Your task to perform on an android device: Open the calendar app, open the side menu, and click the "Day" option Image 0: 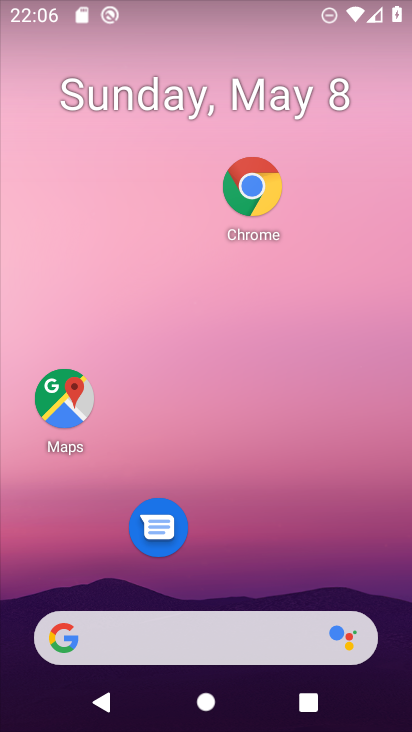
Step 0: click (337, 220)
Your task to perform on an android device: Open the calendar app, open the side menu, and click the "Day" option Image 1: 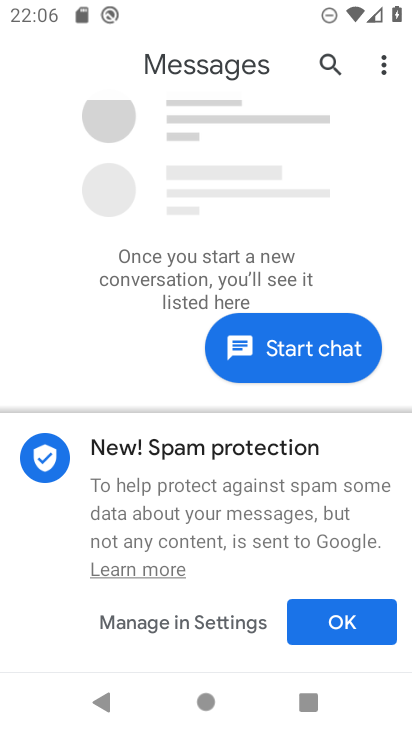
Step 1: press home button
Your task to perform on an android device: Open the calendar app, open the side menu, and click the "Day" option Image 2: 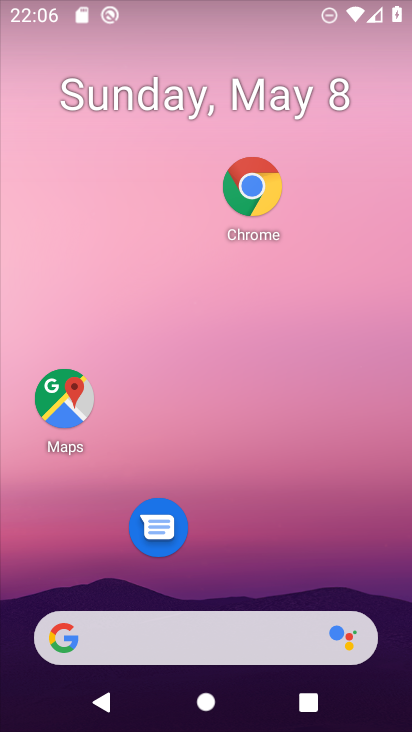
Step 2: drag from (313, 563) to (408, 69)
Your task to perform on an android device: Open the calendar app, open the side menu, and click the "Day" option Image 3: 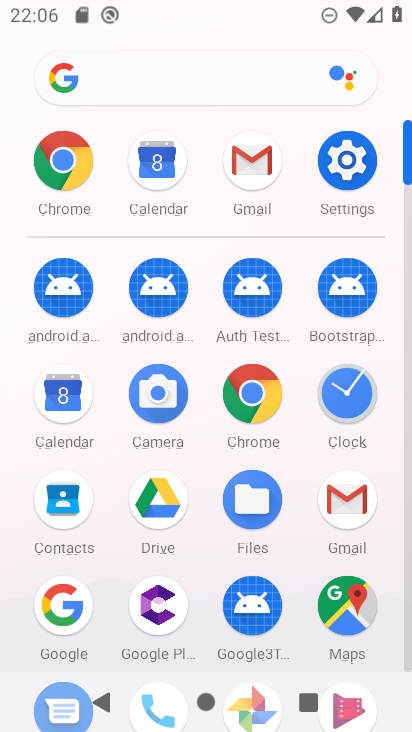
Step 3: drag from (293, 523) to (333, 134)
Your task to perform on an android device: Open the calendar app, open the side menu, and click the "Day" option Image 4: 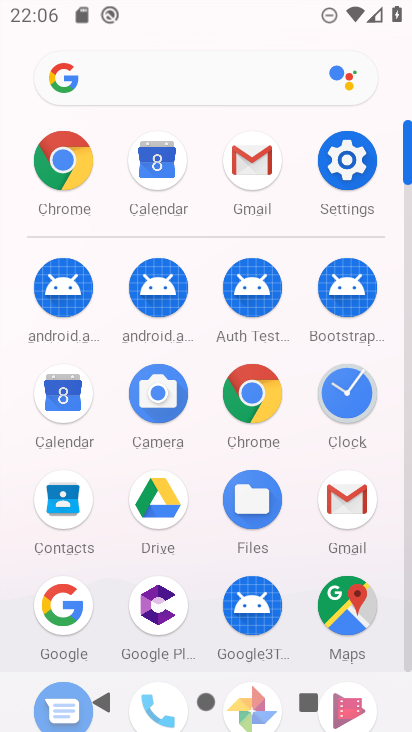
Step 4: click (64, 411)
Your task to perform on an android device: Open the calendar app, open the side menu, and click the "Day" option Image 5: 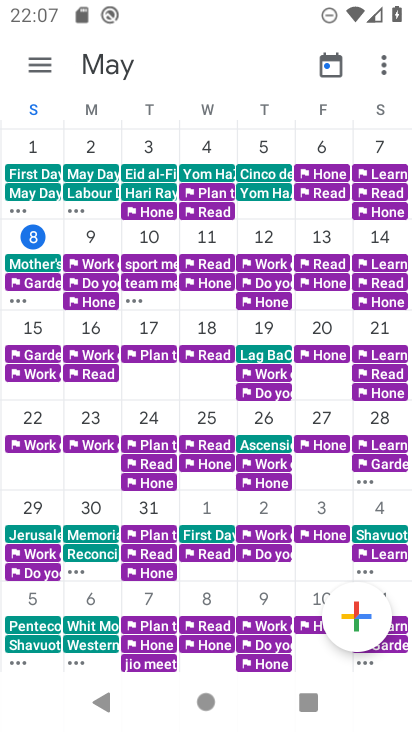
Step 5: click (34, 58)
Your task to perform on an android device: Open the calendar app, open the side menu, and click the "Day" option Image 6: 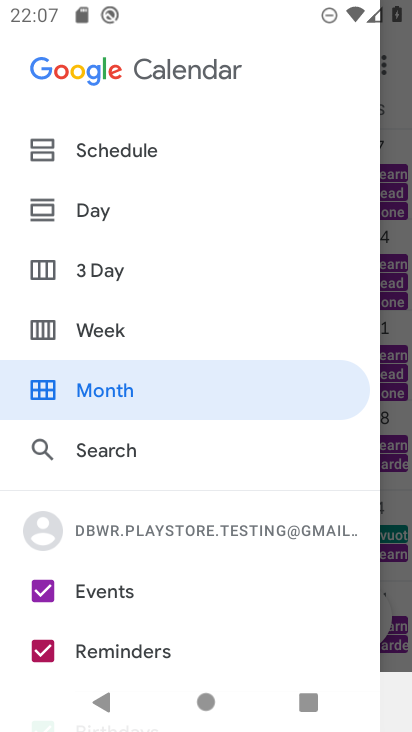
Step 6: click (152, 213)
Your task to perform on an android device: Open the calendar app, open the side menu, and click the "Day" option Image 7: 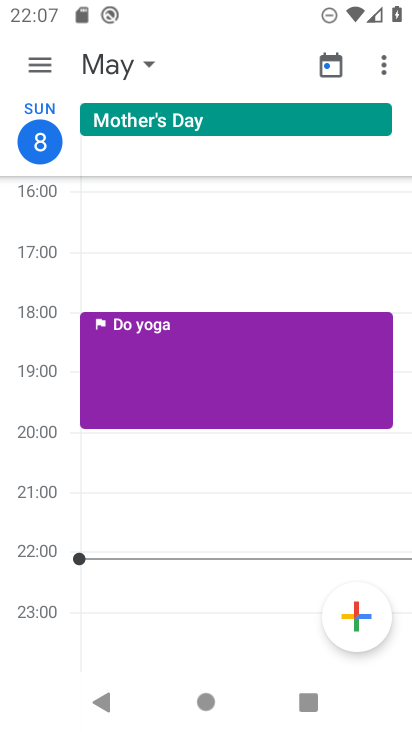
Step 7: task complete